Your task to perform on an android device: When is my next appointment? Image 0: 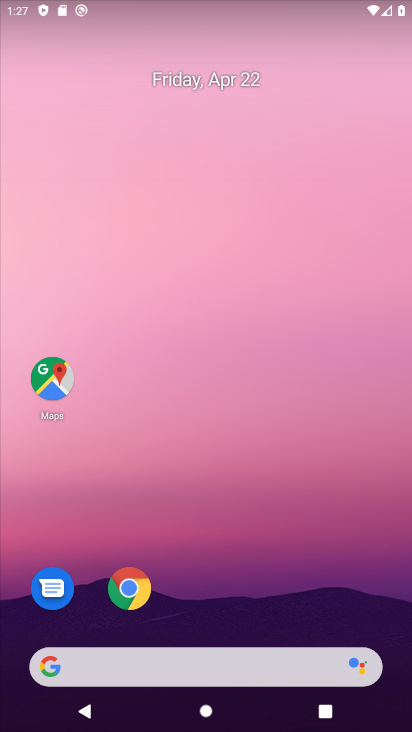
Step 0: drag from (243, 603) to (266, 78)
Your task to perform on an android device: When is my next appointment? Image 1: 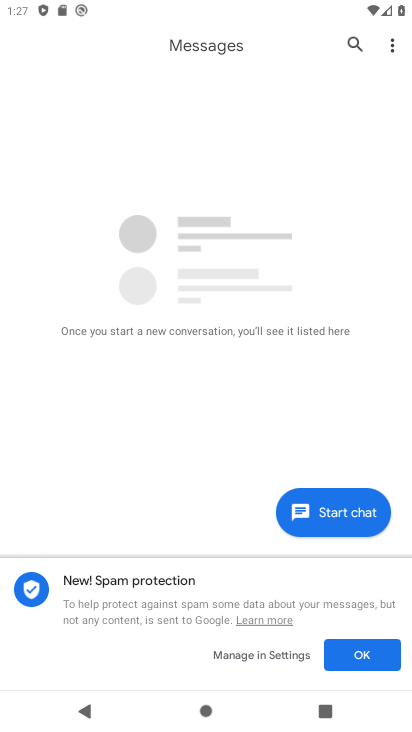
Step 1: press enter
Your task to perform on an android device: When is my next appointment? Image 2: 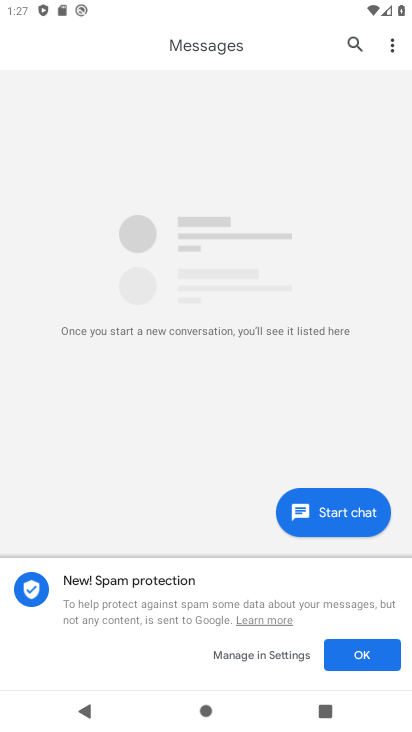
Step 2: press home button
Your task to perform on an android device: When is my next appointment? Image 3: 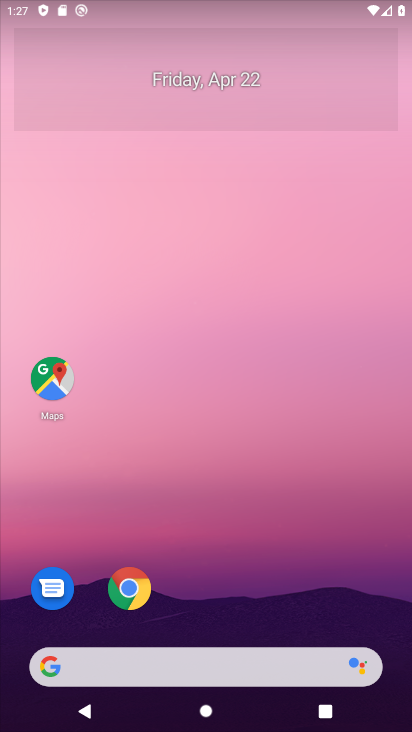
Step 3: drag from (252, 607) to (260, 83)
Your task to perform on an android device: When is my next appointment? Image 4: 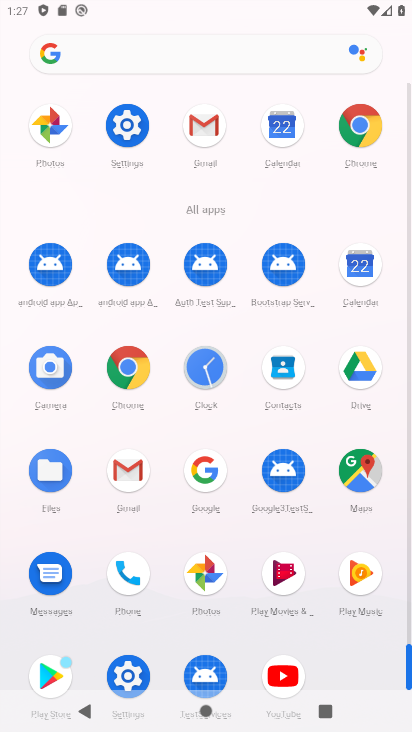
Step 4: drag from (214, 480) to (267, 241)
Your task to perform on an android device: When is my next appointment? Image 5: 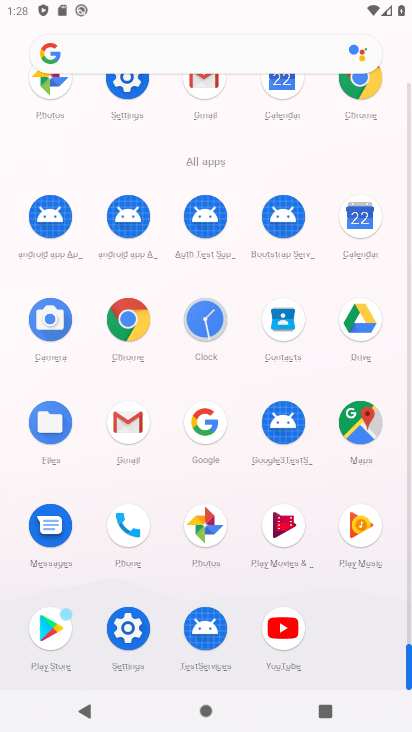
Step 5: click (365, 223)
Your task to perform on an android device: When is my next appointment? Image 6: 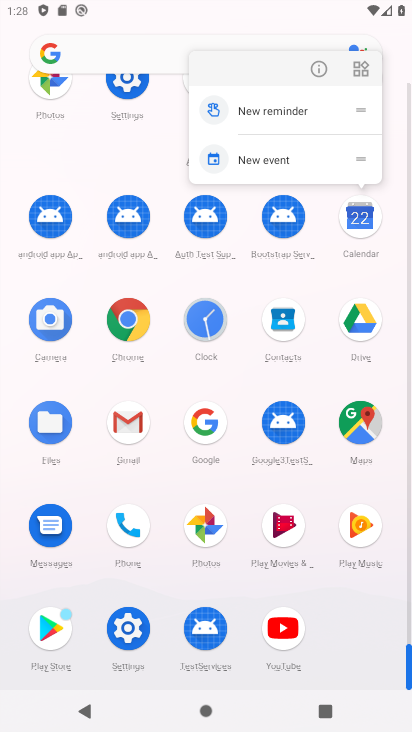
Step 6: click (363, 233)
Your task to perform on an android device: When is my next appointment? Image 7: 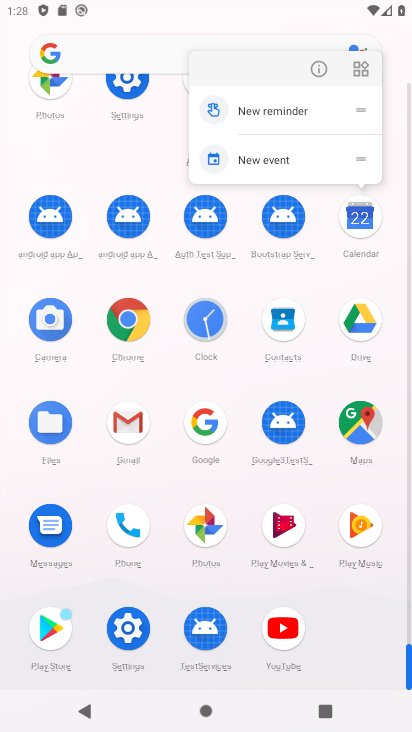
Step 7: click (364, 231)
Your task to perform on an android device: When is my next appointment? Image 8: 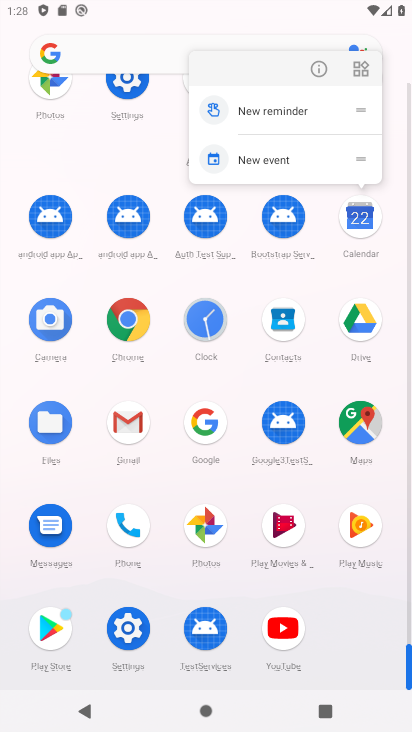
Step 8: click (365, 230)
Your task to perform on an android device: When is my next appointment? Image 9: 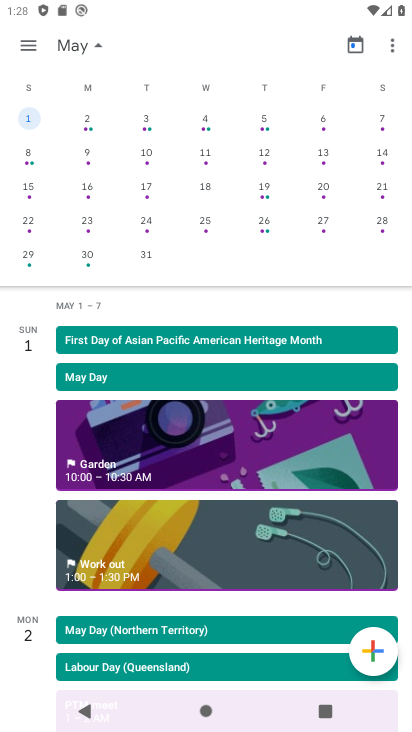
Step 9: task complete